Your task to perform on an android device: check storage Image 0: 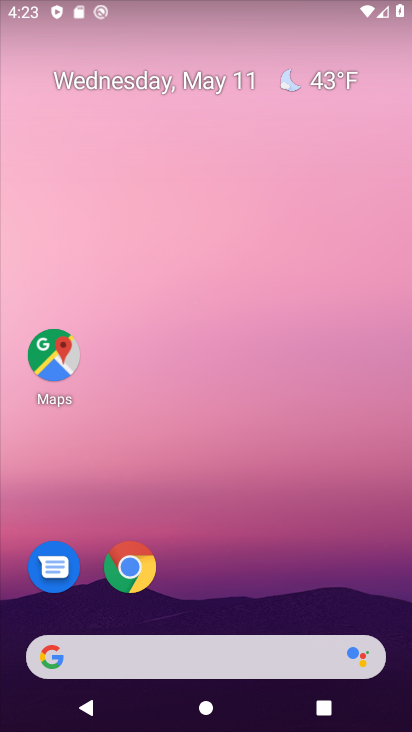
Step 0: drag from (226, 520) to (291, 145)
Your task to perform on an android device: check storage Image 1: 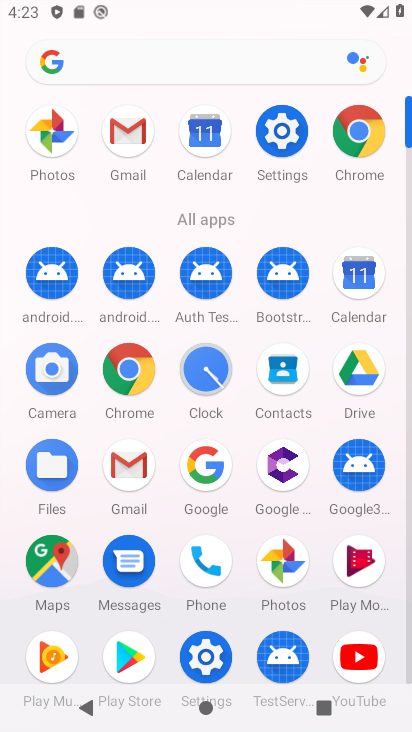
Step 1: click (212, 656)
Your task to perform on an android device: check storage Image 2: 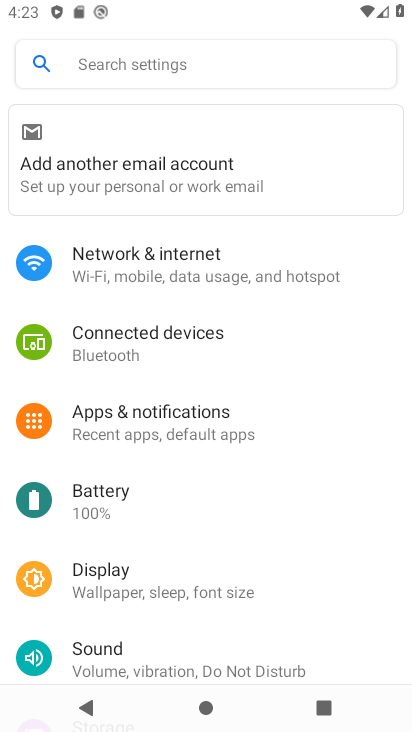
Step 2: drag from (182, 610) to (225, 247)
Your task to perform on an android device: check storage Image 3: 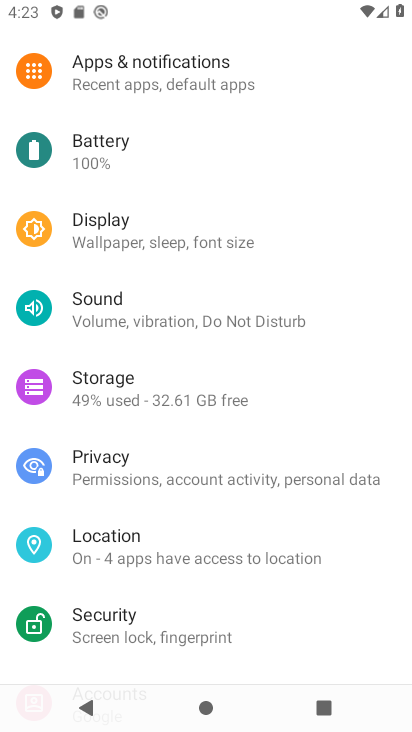
Step 3: click (179, 389)
Your task to perform on an android device: check storage Image 4: 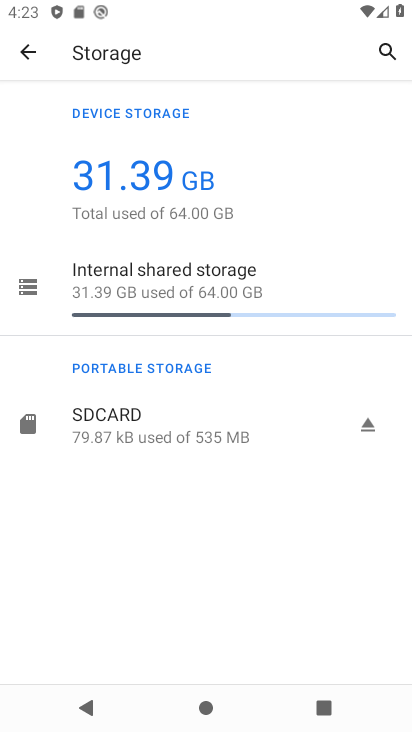
Step 4: task complete